Your task to perform on an android device: Turn off the flashlight Image 0: 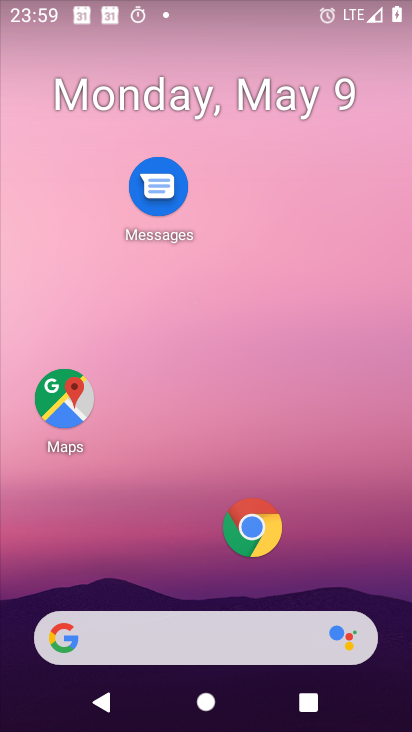
Step 0: drag from (179, 549) to (220, 96)
Your task to perform on an android device: Turn off the flashlight Image 1: 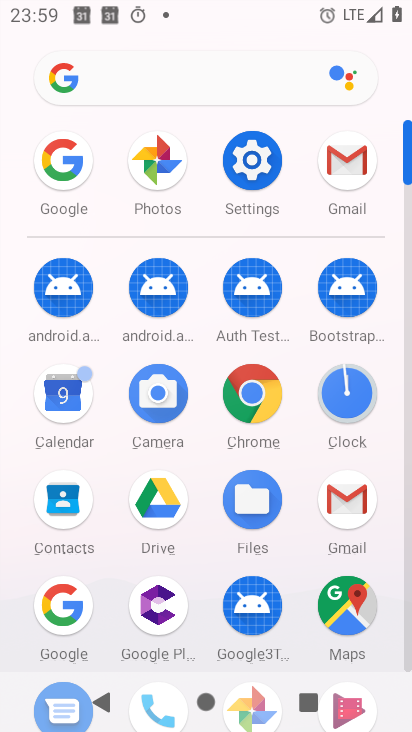
Step 1: click (251, 162)
Your task to perform on an android device: Turn off the flashlight Image 2: 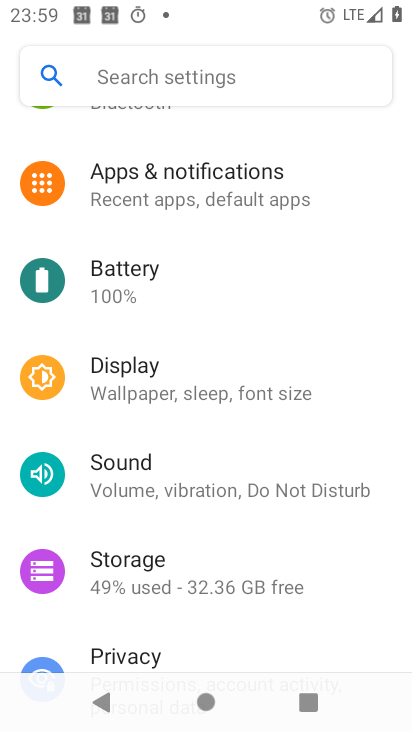
Step 2: click (174, 88)
Your task to perform on an android device: Turn off the flashlight Image 3: 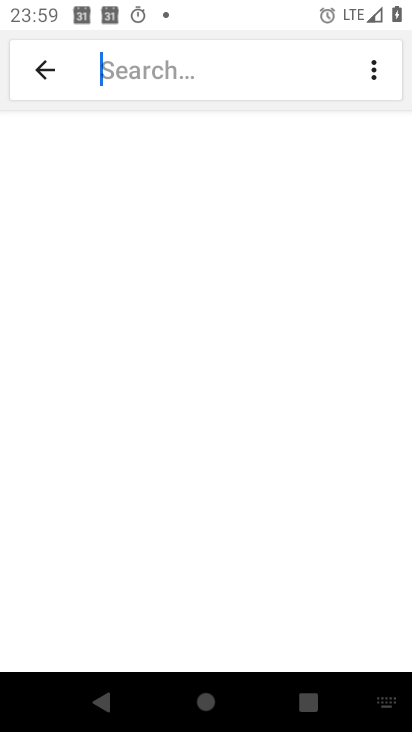
Step 3: type "flash"
Your task to perform on an android device: Turn off the flashlight Image 4: 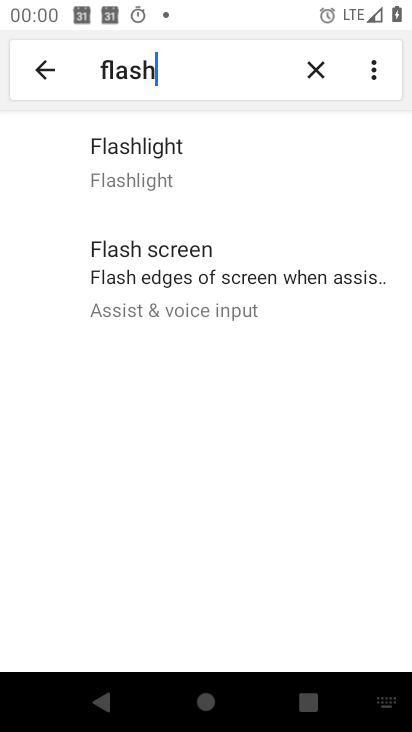
Step 4: task complete